Your task to perform on an android device: What's the weather going to be this weekend? Image 0: 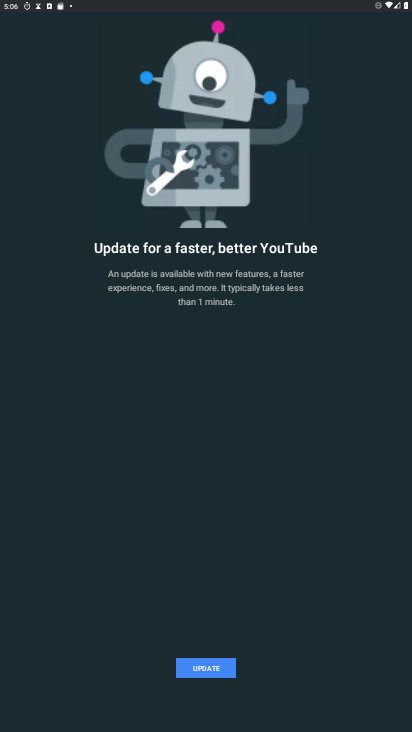
Step 0: press home button
Your task to perform on an android device: What's the weather going to be this weekend? Image 1: 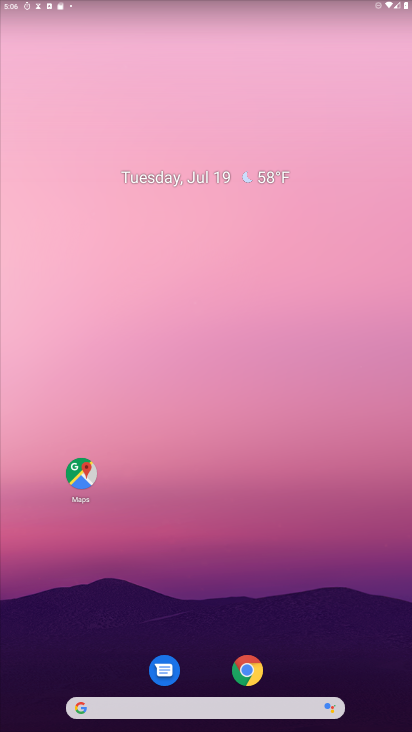
Step 1: drag from (239, 707) to (255, 5)
Your task to perform on an android device: What's the weather going to be this weekend? Image 2: 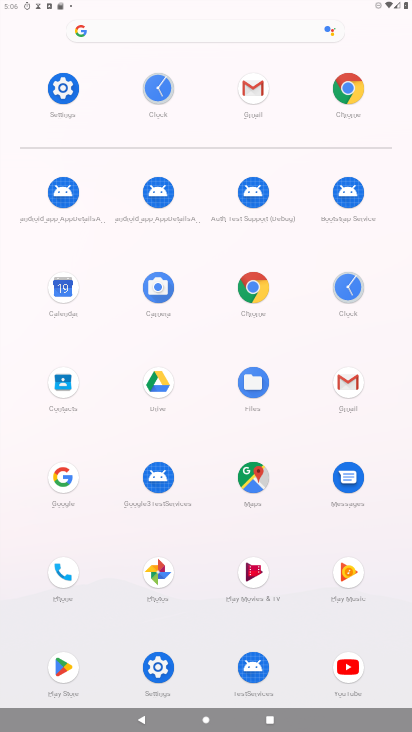
Step 2: click (267, 289)
Your task to perform on an android device: What's the weather going to be this weekend? Image 3: 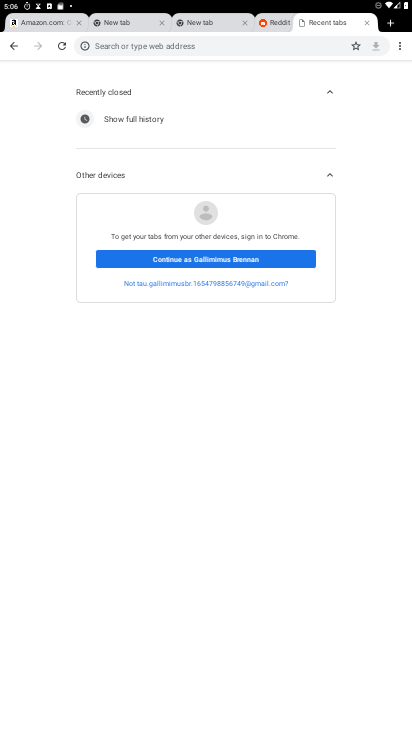
Step 3: click (212, 46)
Your task to perform on an android device: What's the weather going to be this weekend? Image 4: 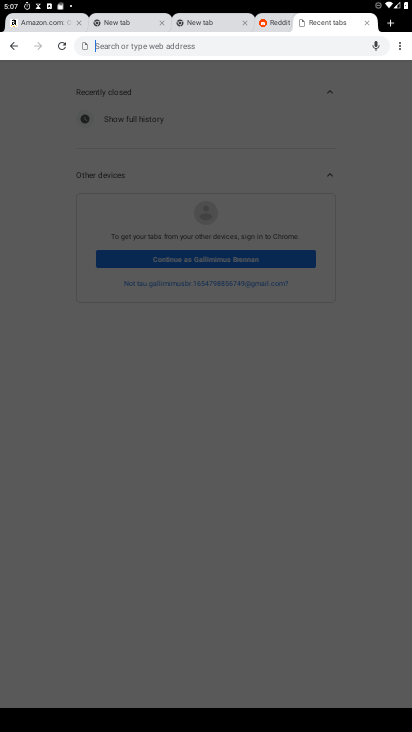
Step 4: type "weather going to be this weekend"
Your task to perform on an android device: What's the weather going to be this weekend? Image 5: 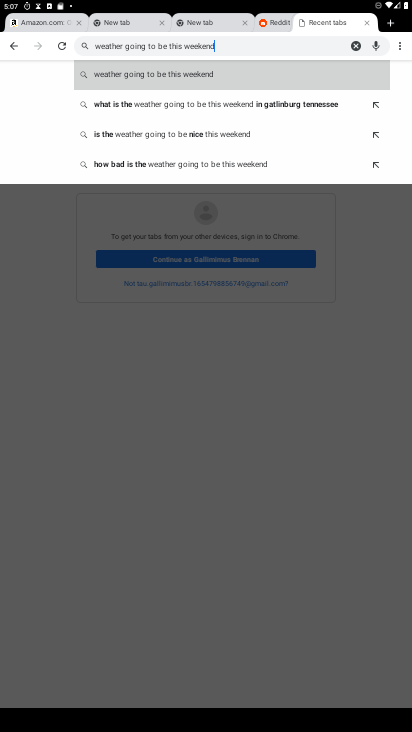
Step 5: click (156, 67)
Your task to perform on an android device: What's the weather going to be this weekend? Image 6: 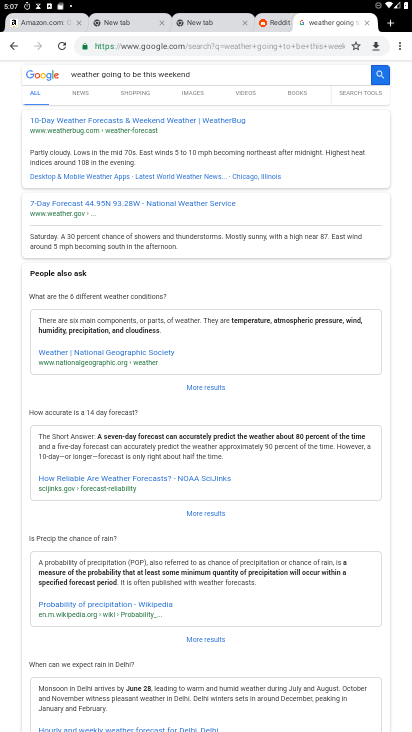
Step 6: task complete